Your task to perform on an android device: clear history in the chrome app Image 0: 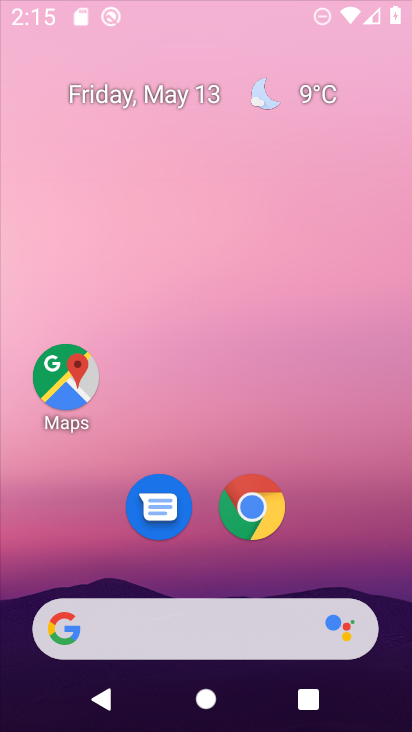
Step 0: click (385, 67)
Your task to perform on an android device: clear history in the chrome app Image 1: 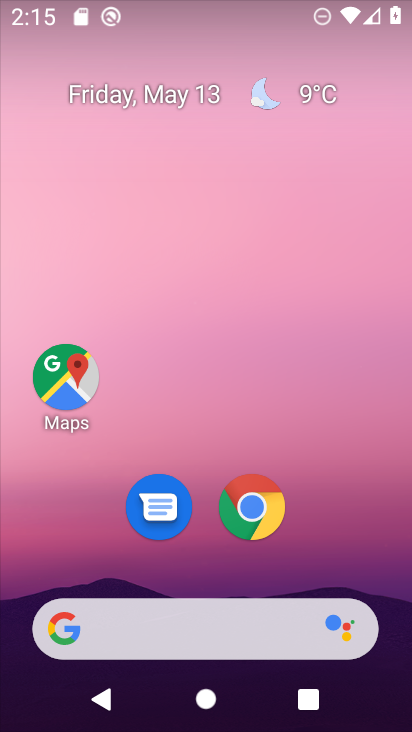
Step 1: drag from (367, 426) to (364, 53)
Your task to perform on an android device: clear history in the chrome app Image 2: 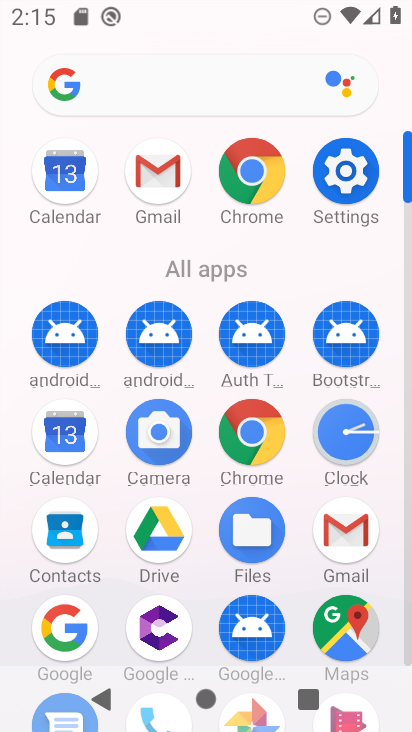
Step 2: click (249, 167)
Your task to perform on an android device: clear history in the chrome app Image 3: 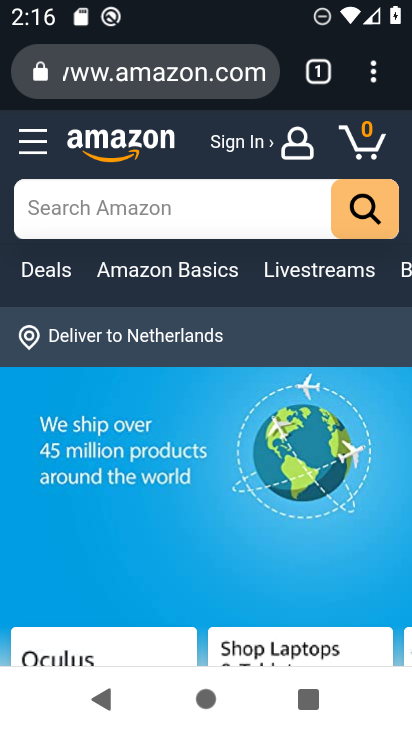
Step 3: drag from (366, 73) to (143, 400)
Your task to perform on an android device: clear history in the chrome app Image 4: 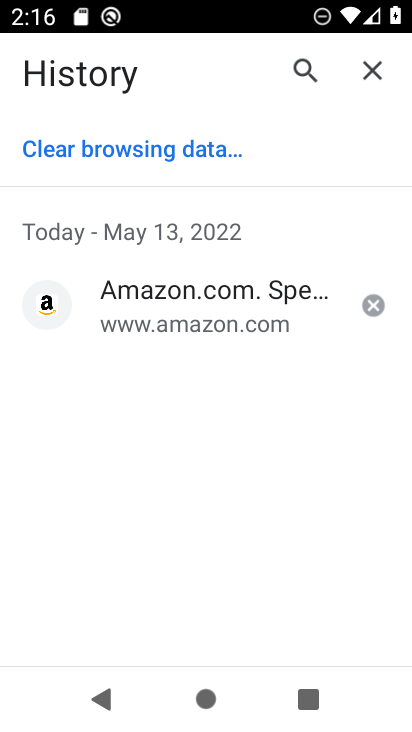
Step 4: click (124, 152)
Your task to perform on an android device: clear history in the chrome app Image 5: 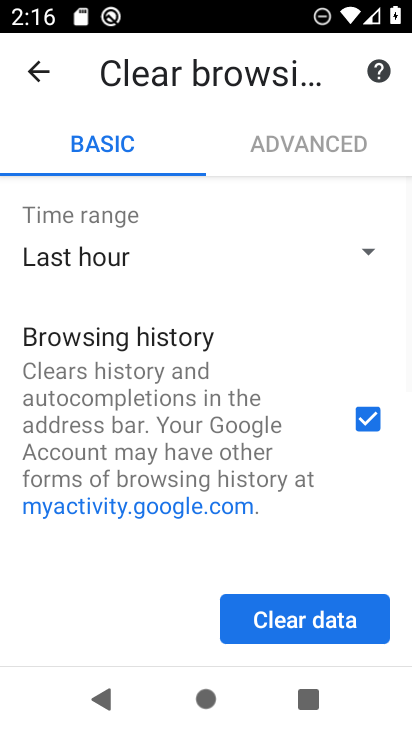
Step 5: click (315, 611)
Your task to perform on an android device: clear history in the chrome app Image 6: 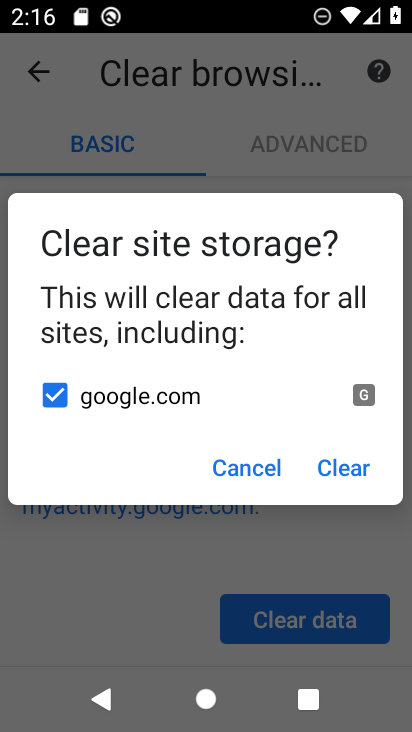
Step 6: click (341, 464)
Your task to perform on an android device: clear history in the chrome app Image 7: 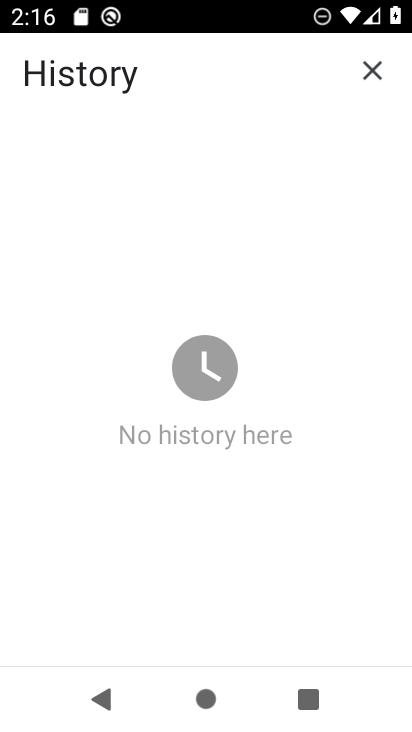
Step 7: task complete